Your task to perform on an android device: turn on wifi Image 0: 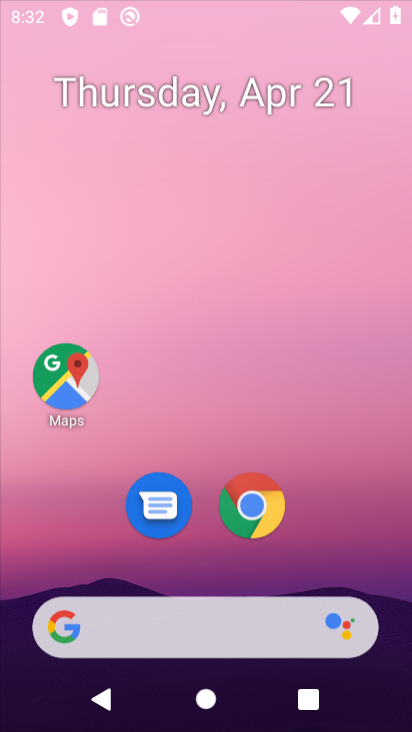
Step 0: click (234, 65)
Your task to perform on an android device: turn on wifi Image 1: 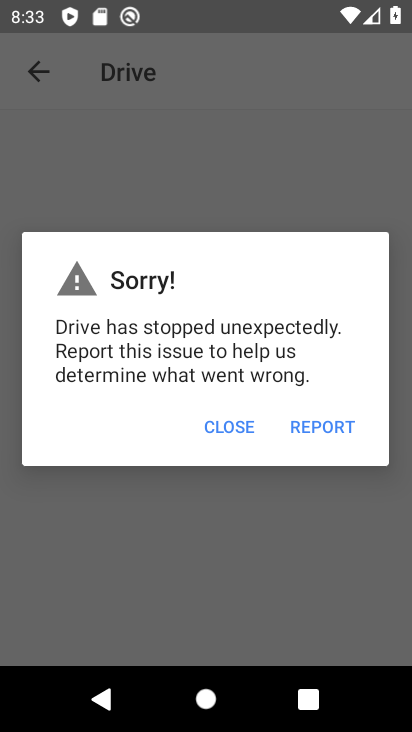
Step 1: click (240, 432)
Your task to perform on an android device: turn on wifi Image 2: 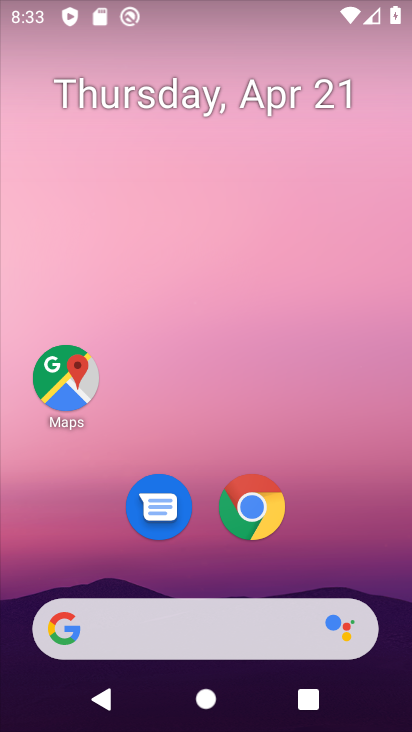
Step 2: drag from (205, 598) to (205, 175)
Your task to perform on an android device: turn on wifi Image 3: 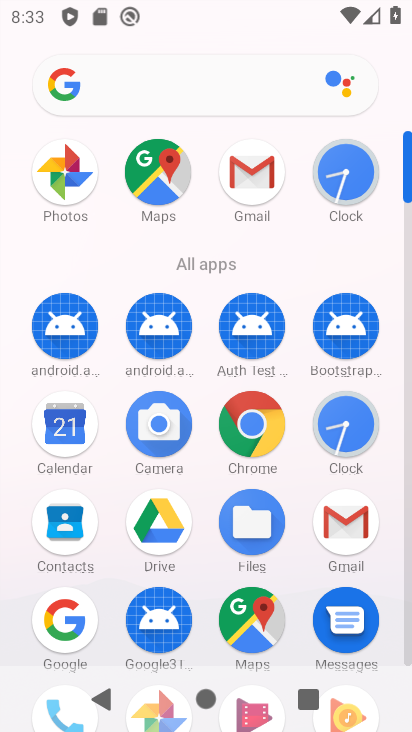
Step 3: drag from (216, 611) to (214, 209)
Your task to perform on an android device: turn on wifi Image 4: 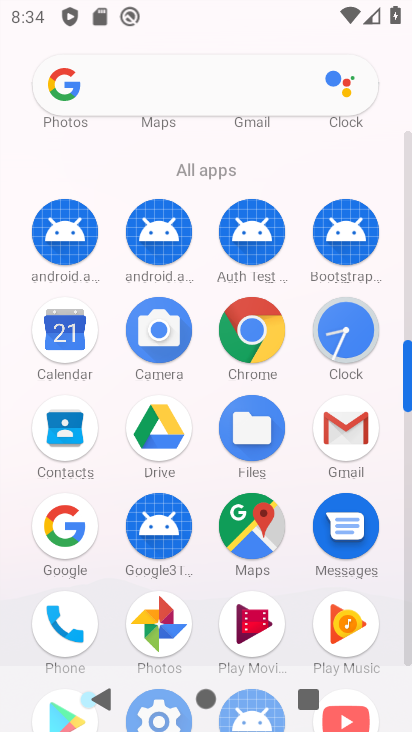
Step 4: drag from (199, 617) to (244, 135)
Your task to perform on an android device: turn on wifi Image 5: 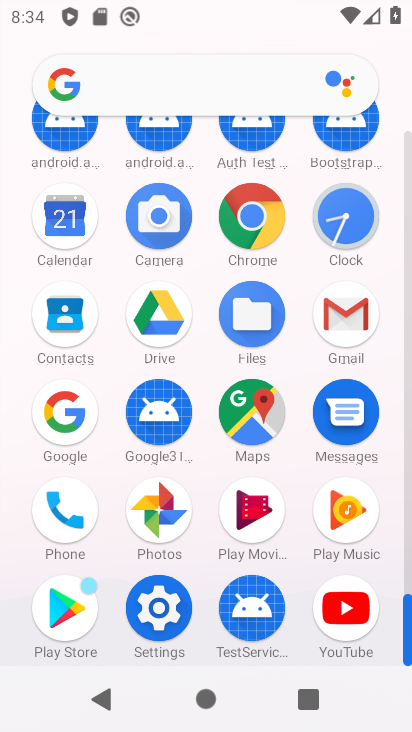
Step 5: click (161, 601)
Your task to perform on an android device: turn on wifi Image 6: 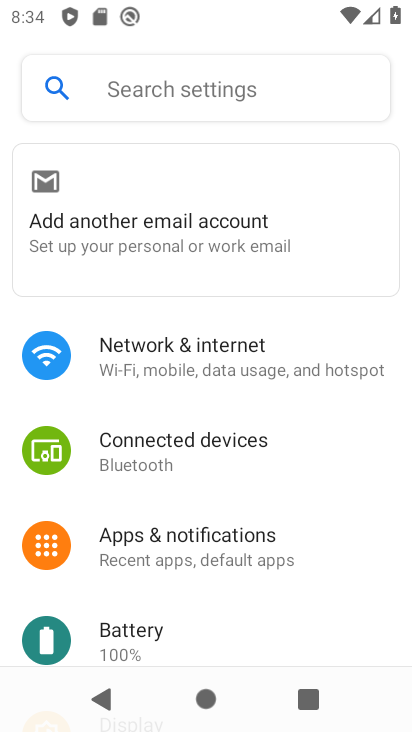
Step 6: click (192, 362)
Your task to perform on an android device: turn on wifi Image 7: 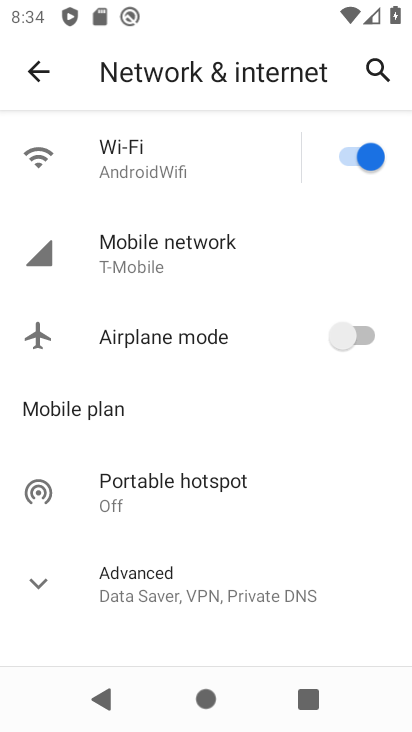
Step 7: task complete